Your task to perform on an android device: Check the weather Image 0: 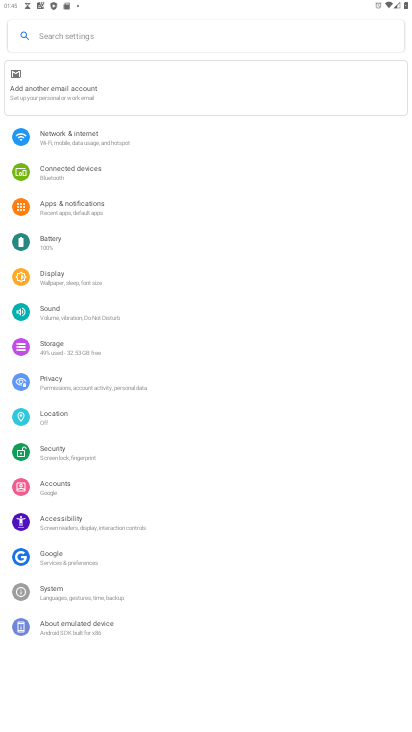
Step 0: press home button
Your task to perform on an android device: Check the weather Image 1: 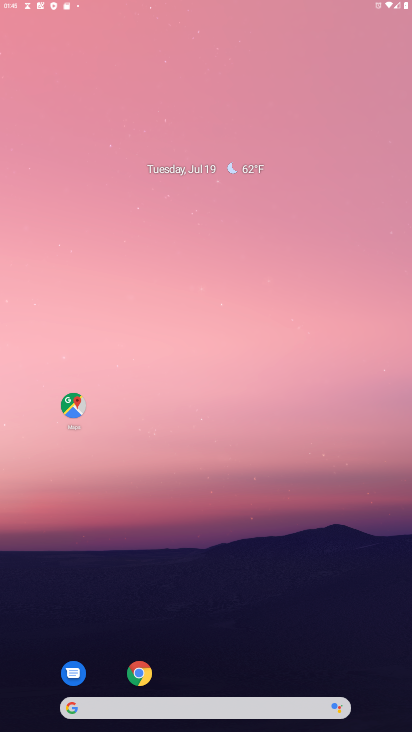
Step 1: drag from (182, 563) to (160, 225)
Your task to perform on an android device: Check the weather Image 2: 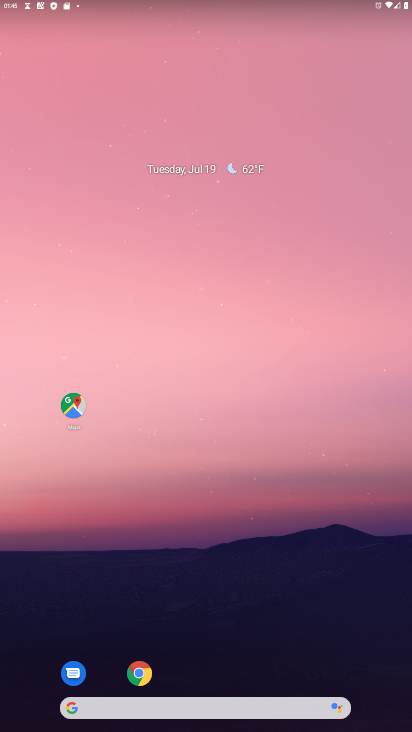
Step 2: drag from (210, 609) to (211, 135)
Your task to perform on an android device: Check the weather Image 3: 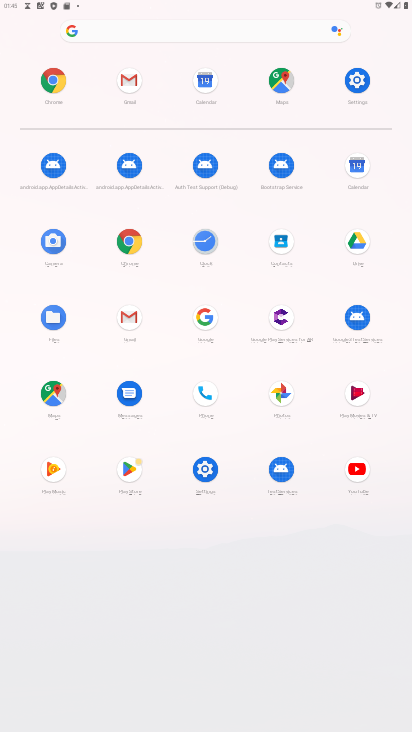
Step 3: click (52, 80)
Your task to perform on an android device: Check the weather Image 4: 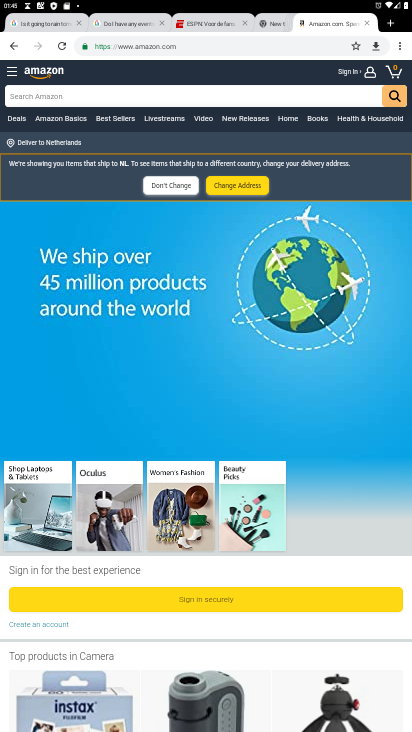
Step 4: click (395, 25)
Your task to perform on an android device: Check the weather Image 5: 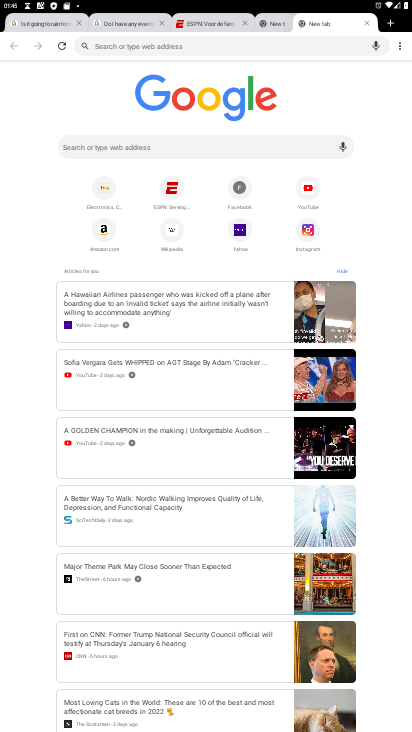
Step 5: click (232, 143)
Your task to perform on an android device: Check the weather Image 6: 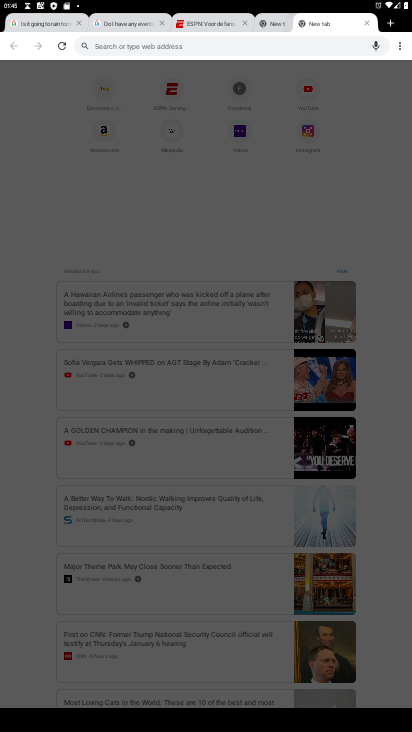
Step 6: type "Check the weather "
Your task to perform on an android device: Check the weather Image 7: 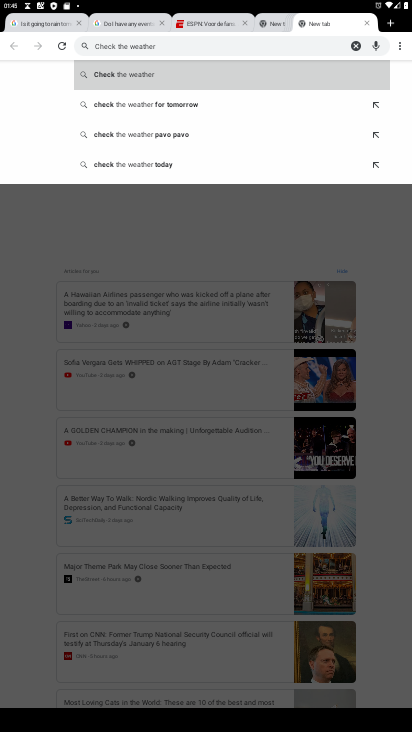
Step 7: click (225, 77)
Your task to perform on an android device: Check the weather Image 8: 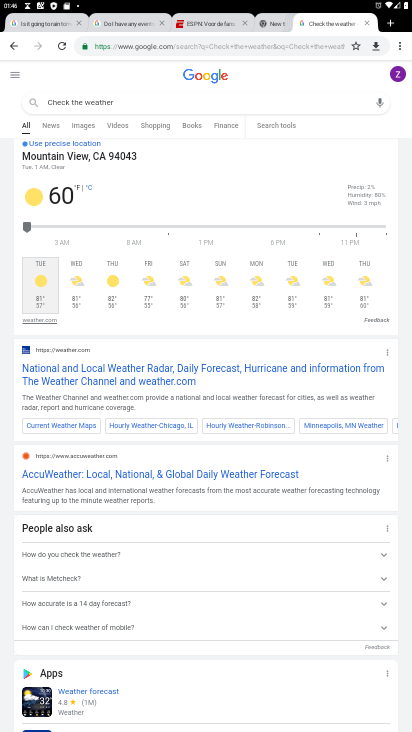
Step 8: task complete